Your task to perform on an android device: Do I have any events today? Image 0: 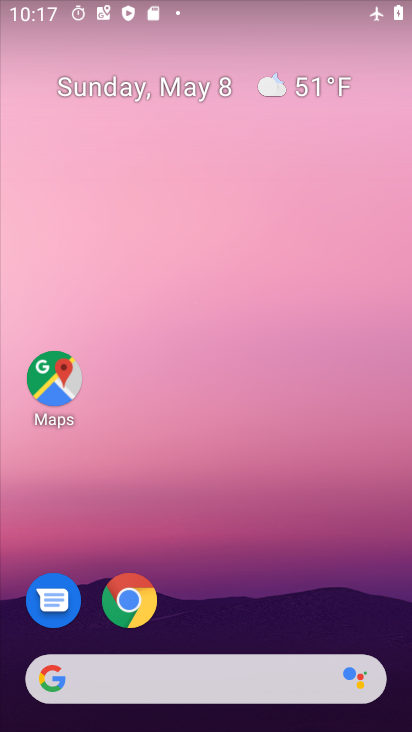
Step 0: drag from (245, 567) to (253, 21)
Your task to perform on an android device: Do I have any events today? Image 1: 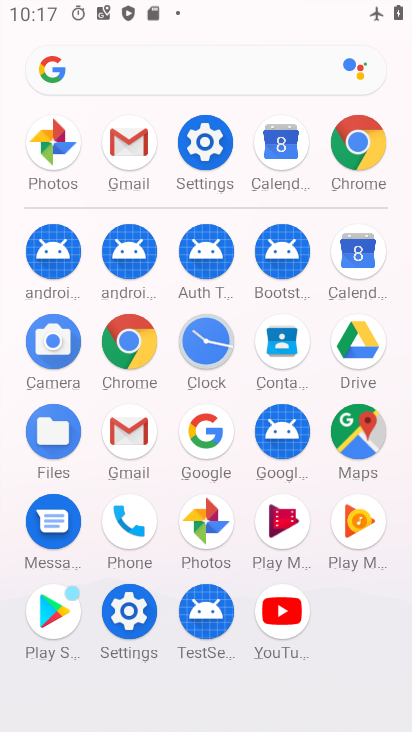
Step 1: drag from (9, 567) to (24, 259)
Your task to perform on an android device: Do I have any events today? Image 2: 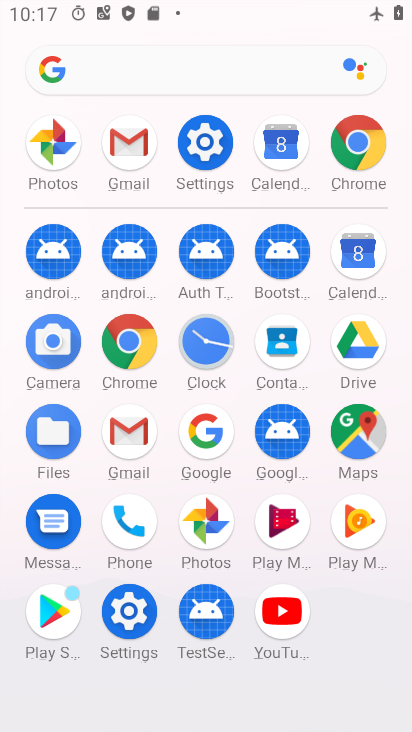
Step 2: click (354, 243)
Your task to perform on an android device: Do I have any events today? Image 3: 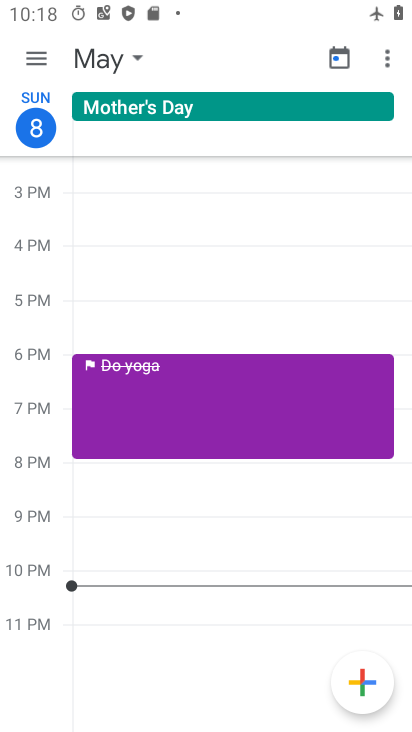
Step 3: click (334, 53)
Your task to perform on an android device: Do I have any events today? Image 4: 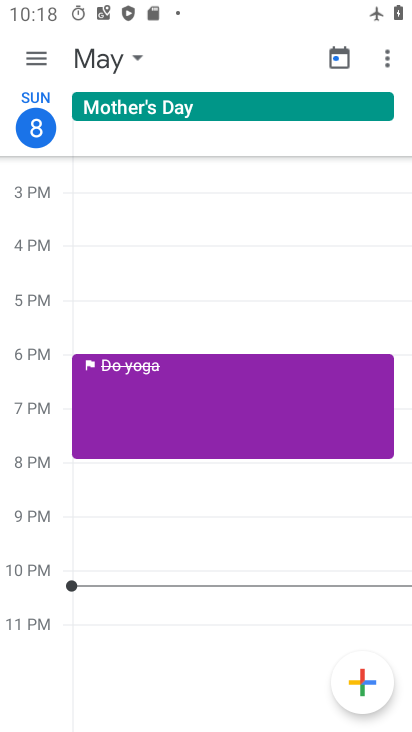
Step 4: task complete